Your task to perform on an android device: turn on wifi Image 0: 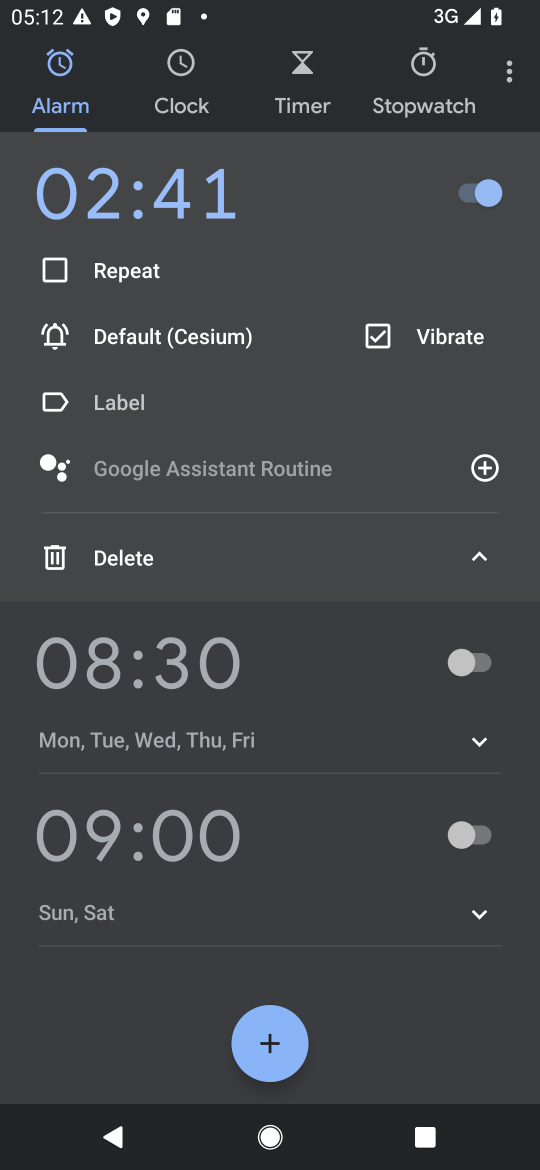
Step 0: press home button
Your task to perform on an android device: turn on wifi Image 1: 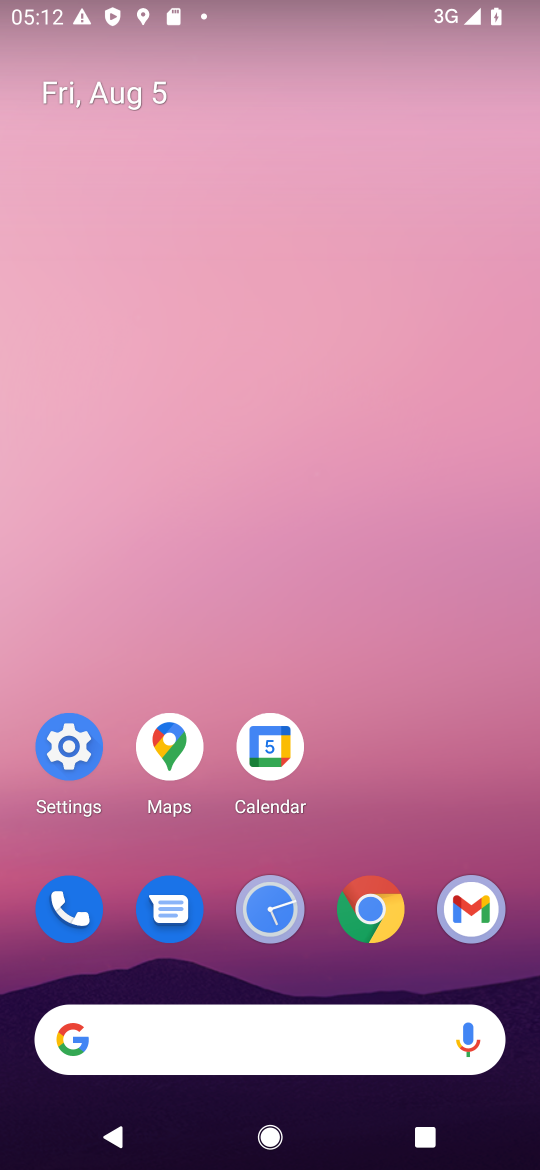
Step 1: click (72, 747)
Your task to perform on an android device: turn on wifi Image 2: 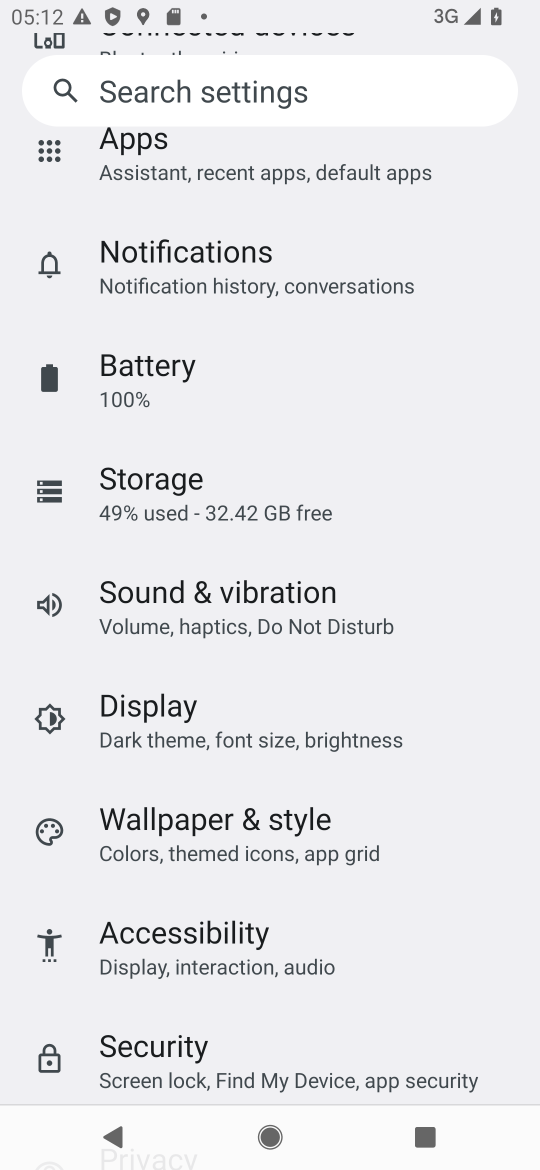
Step 2: drag from (357, 330) to (168, 933)
Your task to perform on an android device: turn on wifi Image 3: 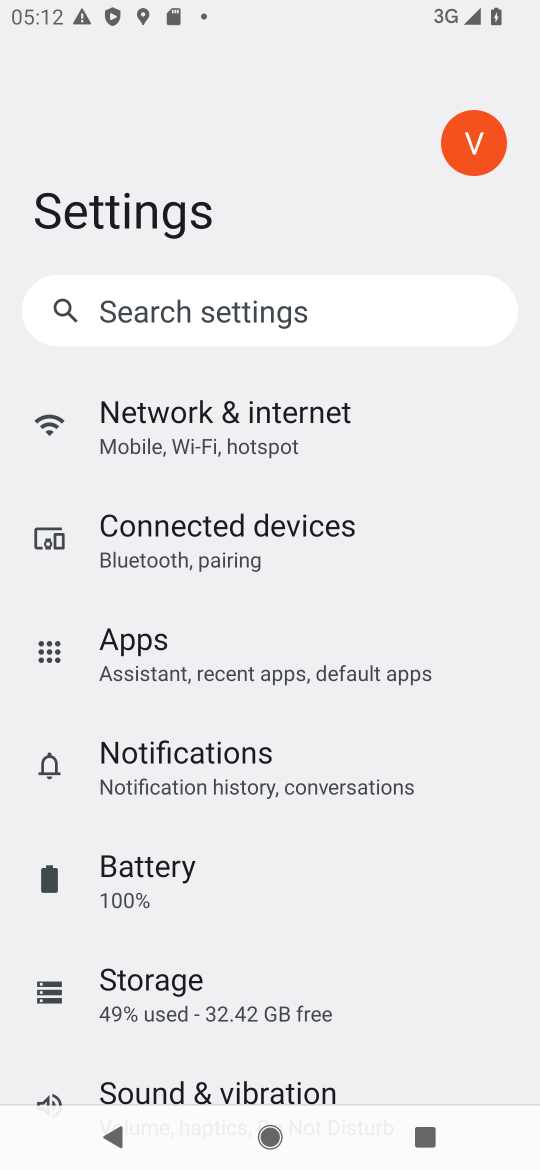
Step 3: click (218, 414)
Your task to perform on an android device: turn on wifi Image 4: 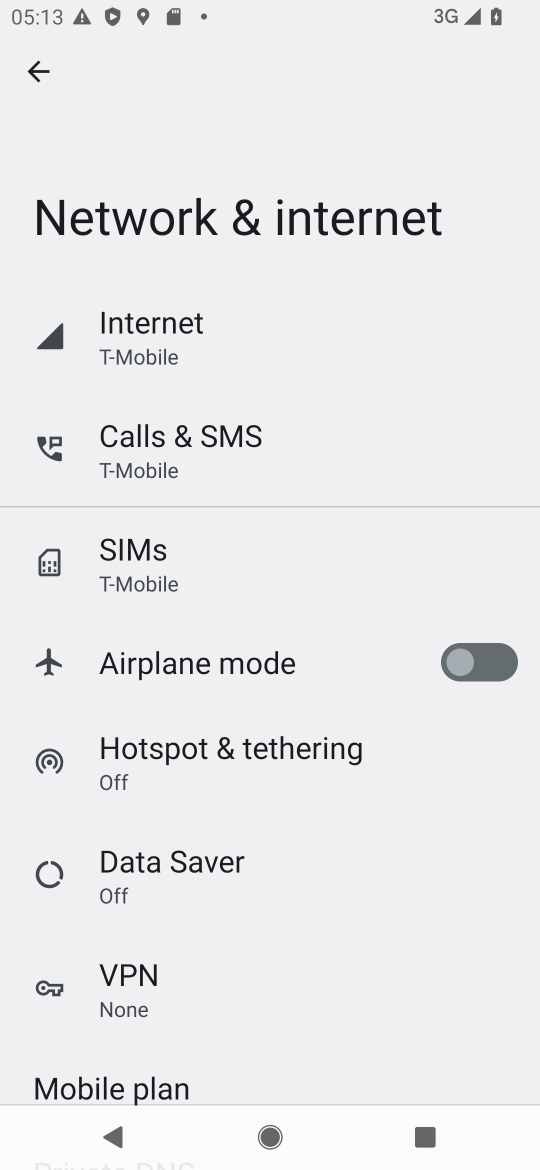
Step 4: click (156, 324)
Your task to perform on an android device: turn on wifi Image 5: 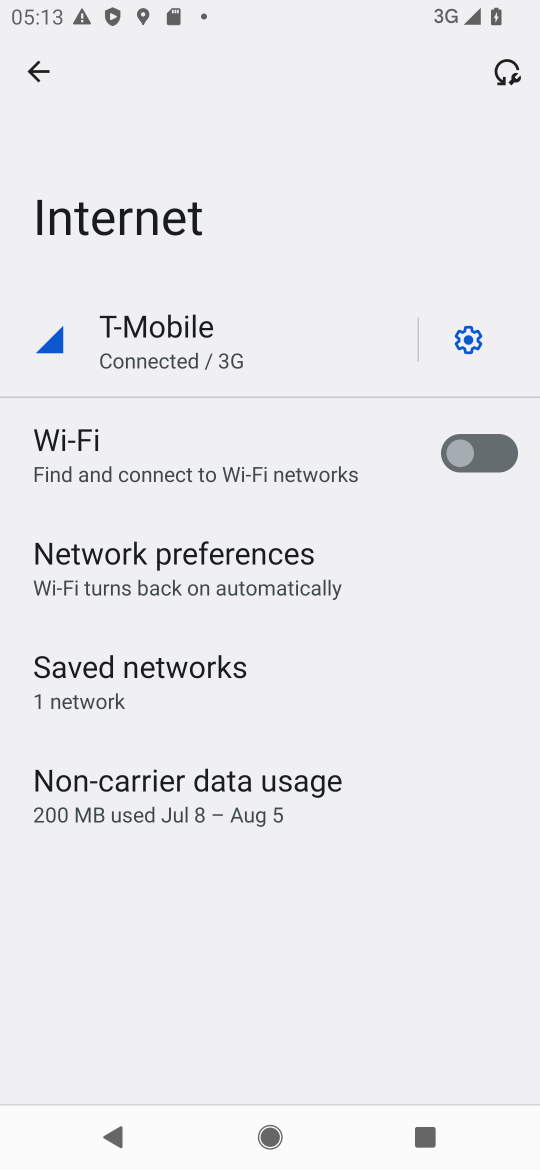
Step 5: click (466, 430)
Your task to perform on an android device: turn on wifi Image 6: 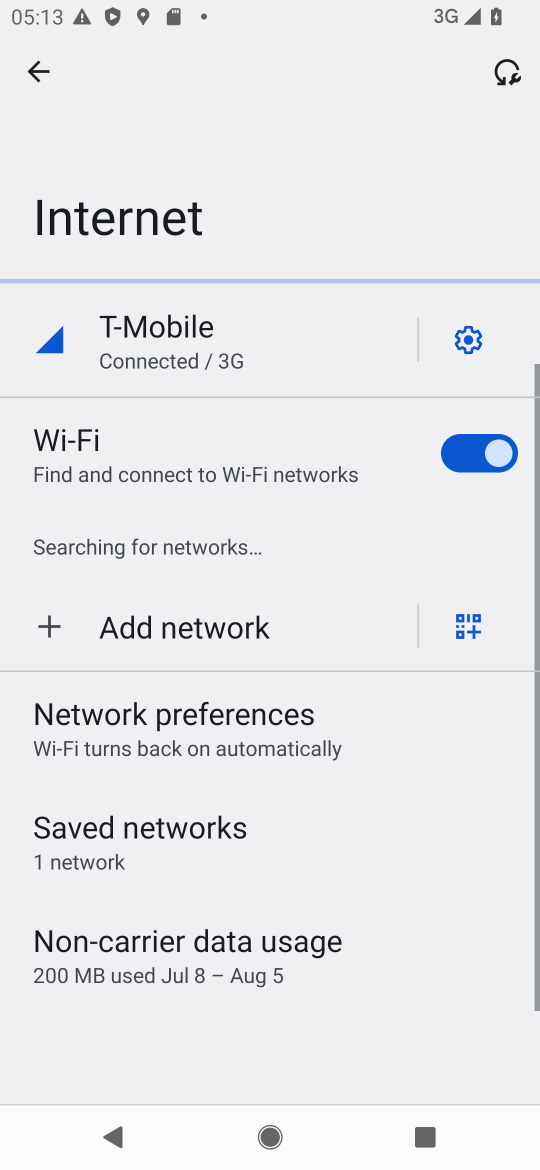
Step 6: task complete